Your task to perform on an android device: toggle priority inbox in the gmail app Image 0: 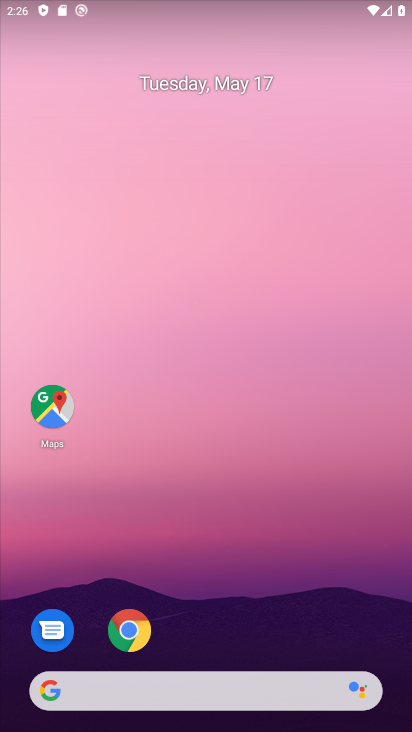
Step 0: drag from (286, 499) to (252, 10)
Your task to perform on an android device: toggle priority inbox in the gmail app Image 1: 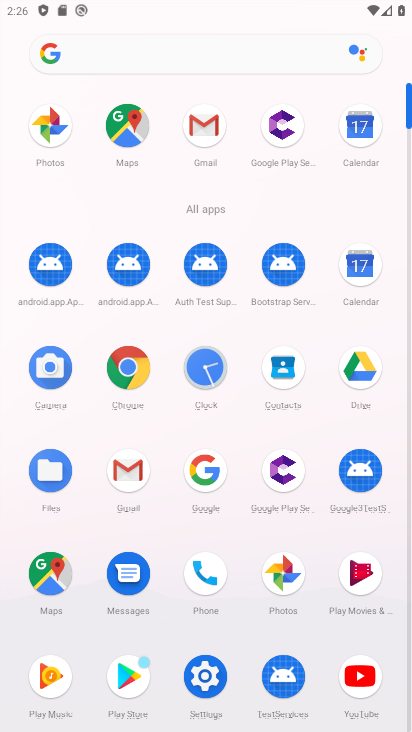
Step 1: click (123, 466)
Your task to perform on an android device: toggle priority inbox in the gmail app Image 2: 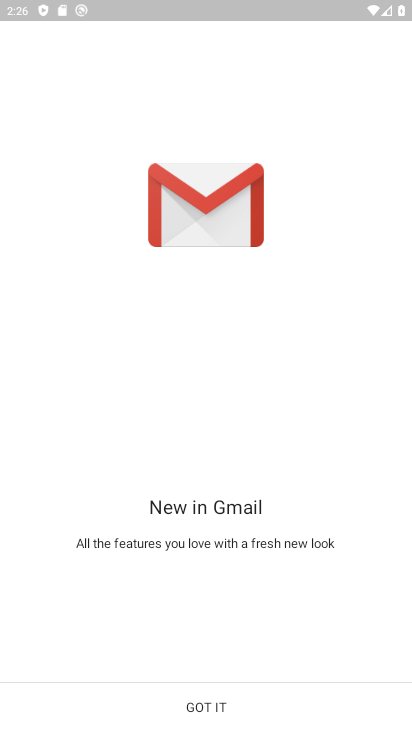
Step 2: click (209, 714)
Your task to perform on an android device: toggle priority inbox in the gmail app Image 3: 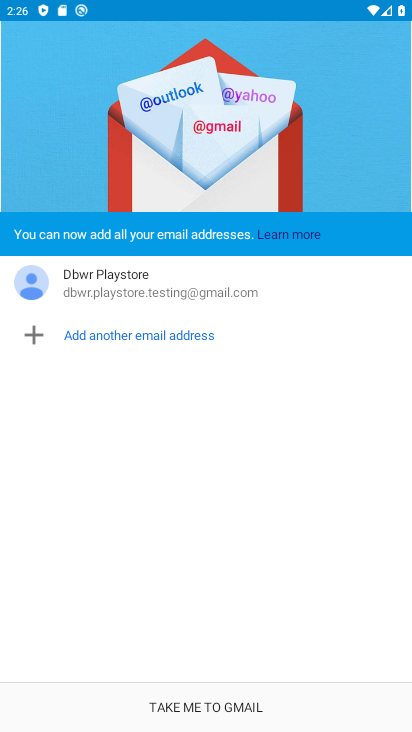
Step 3: click (153, 707)
Your task to perform on an android device: toggle priority inbox in the gmail app Image 4: 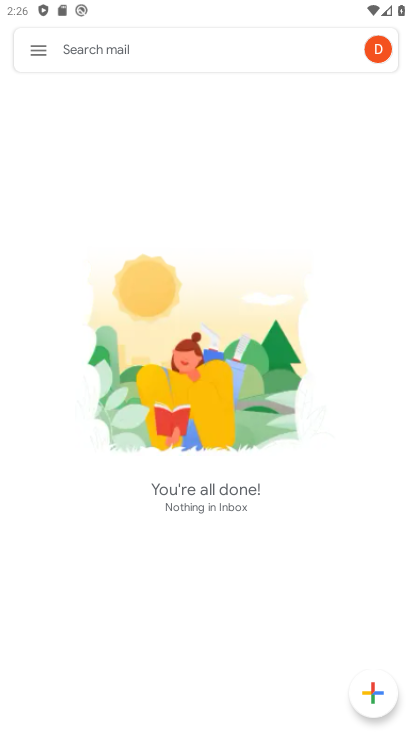
Step 4: click (43, 43)
Your task to perform on an android device: toggle priority inbox in the gmail app Image 5: 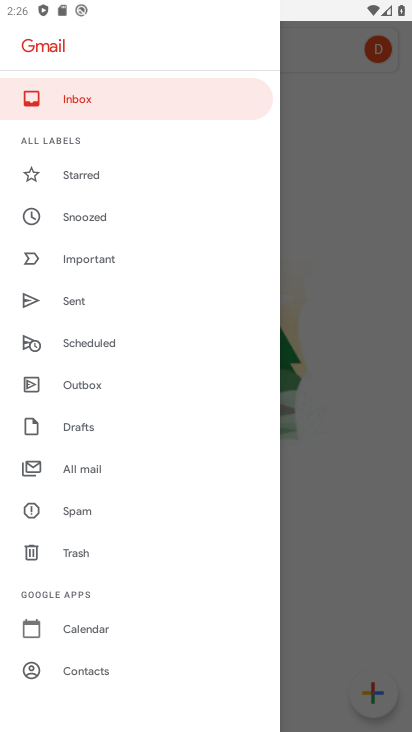
Step 5: drag from (112, 374) to (134, 106)
Your task to perform on an android device: toggle priority inbox in the gmail app Image 6: 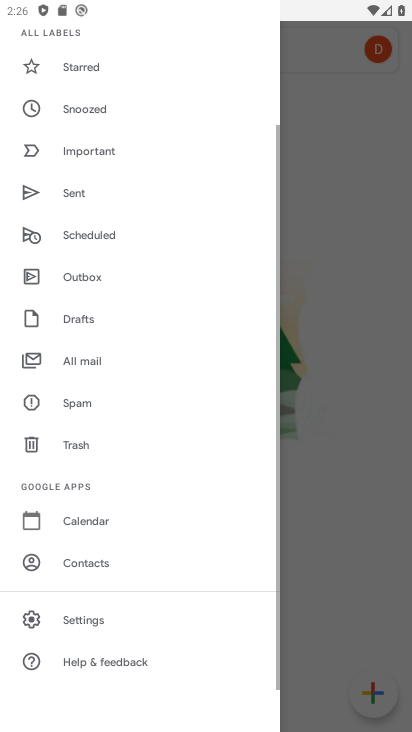
Step 6: click (96, 617)
Your task to perform on an android device: toggle priority inbox in the gmail app Image 7: 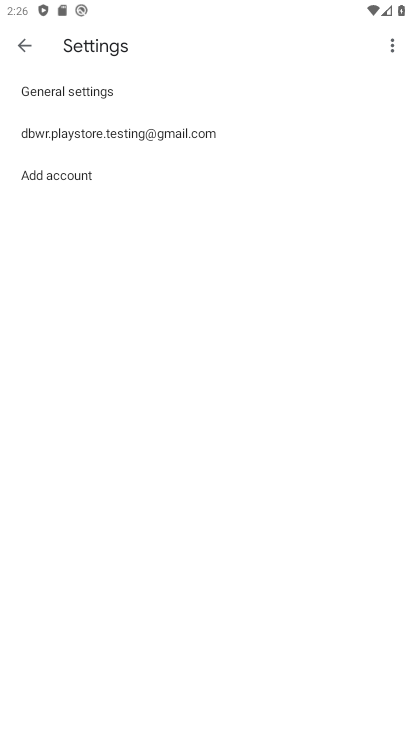
Step 7: click (147, 131)
Your task to perform on an android device: toggle priority inbox in the gmail app Image 8: 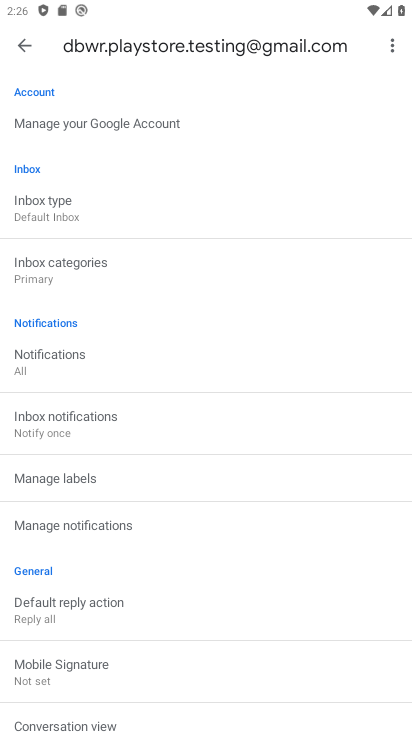
Step 8: click (50, 206)
Your task to perform on an android device: toggle priority inbox in the gmail app Image 9: 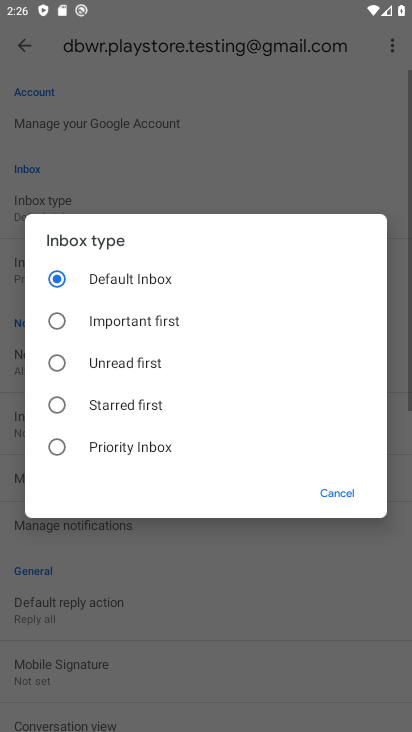
Step 9: click (119, 448)
Your task to perform on an android device: toggle priority inbox in the gmail app Image 10: 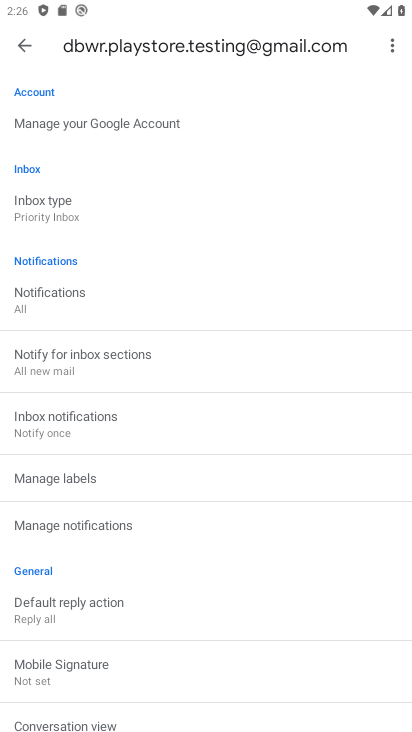
Step 10: task complete